Your task to perform on an android device: move an email to a new category in the gmail app Image 0: 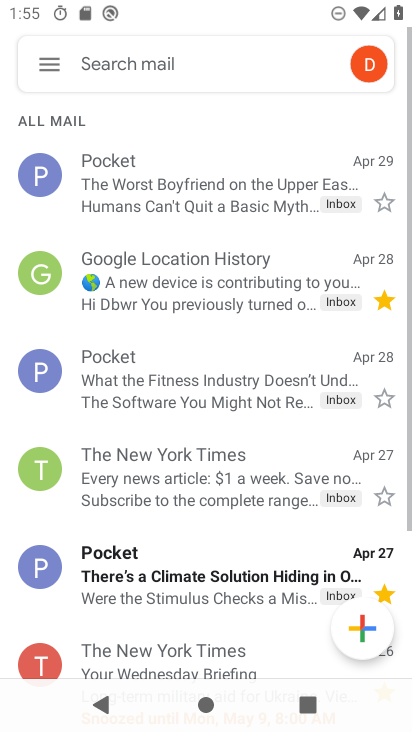
Step 0: press home button
Your task to perform on an android device: move an email to a new category in the gmail app Image 1: 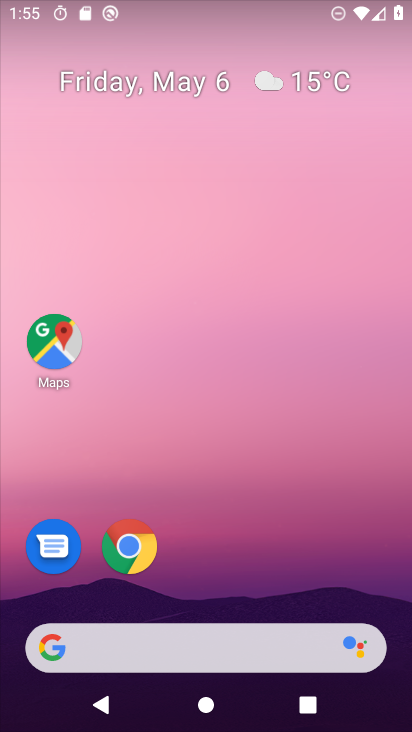
Step 1: drag from (257, 564) to (221, 139)
Your task to perform on an android device: move an email to a new category in the gmail app Image 2: 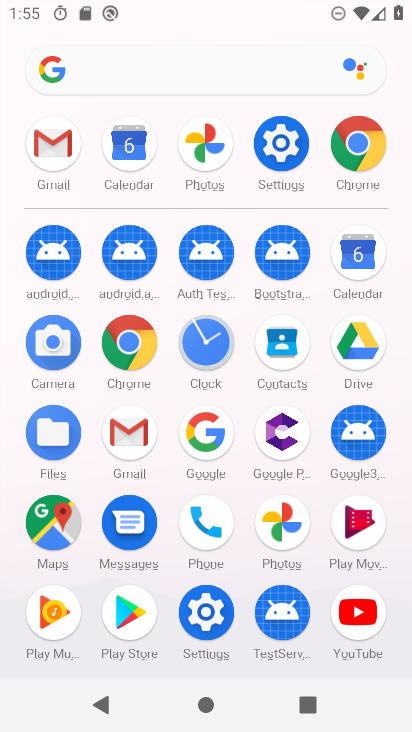
Step 2: click (59, 155)
Your task to perform on an android device: move an email to a new category in the gmail app Image 3: 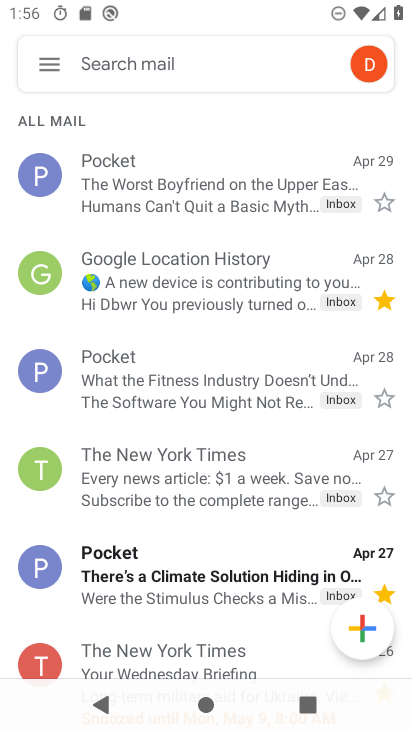
Step 3: click (51, 68)
Your task to perform on an android device: move an email to a new category in the gmail app Image 4: 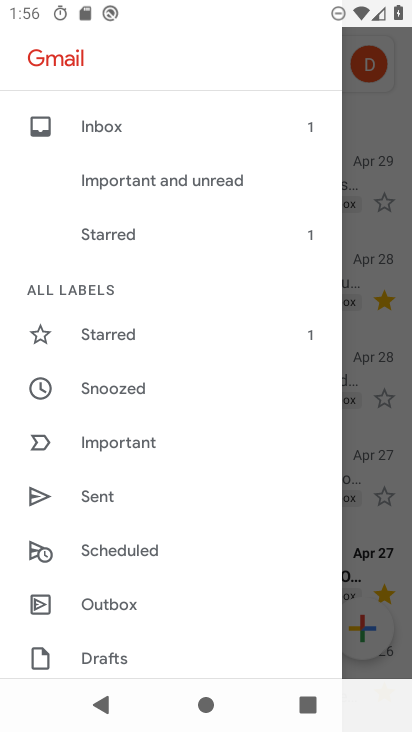
Step 4: click (378, 324)
Your task to perform on an android device: move an email to a new category in the gmail app Image 5: 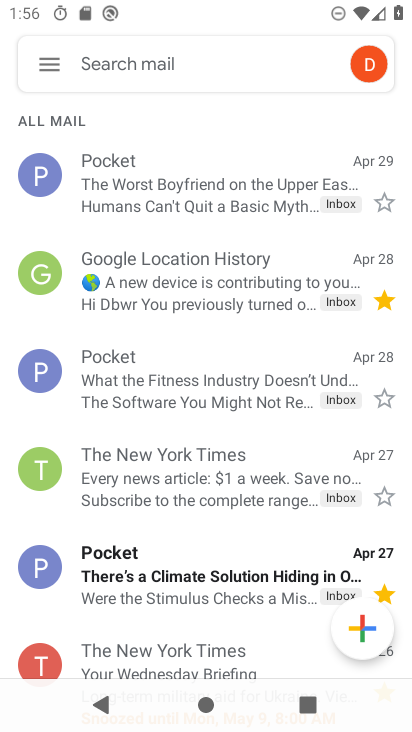
Step 5: click (386, 196)
Your task to perform on an android device: move an email to a new category in the gmail app Image 6: 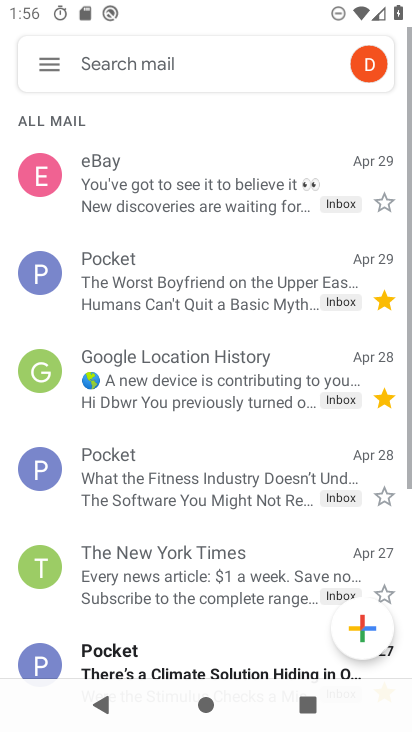
Step 6: task complete